Your task to perform on an android device: Open ESPN.com Image 0: 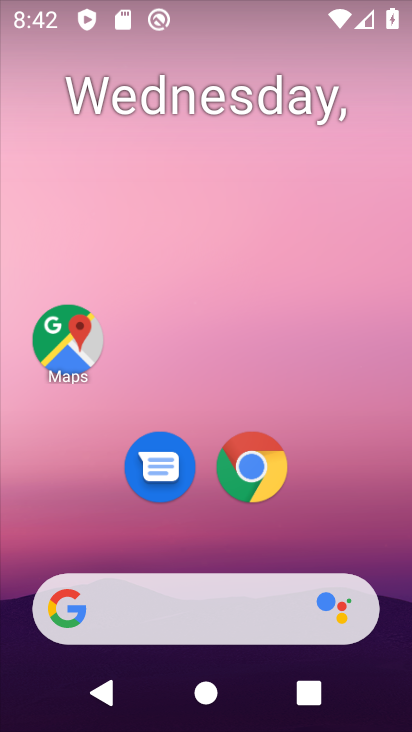
Step 0: drag from (333, 491) to (293, 177)
Your task to perform on an android device: Open ESPN.com Image 1: 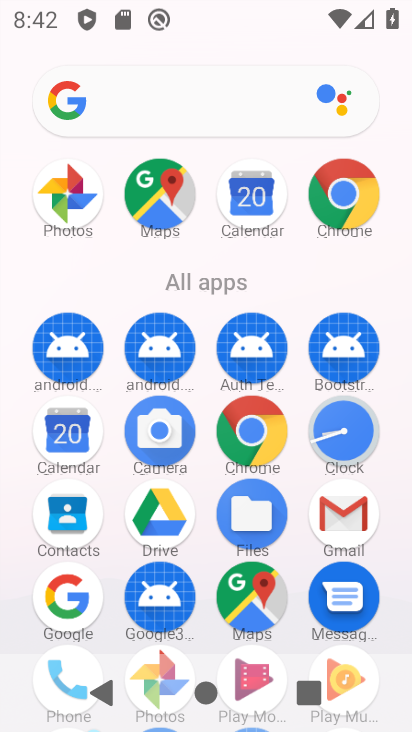
Step 1: click (259, 447)
Your task to perform on an android device: Open ESPN.com Image 2: 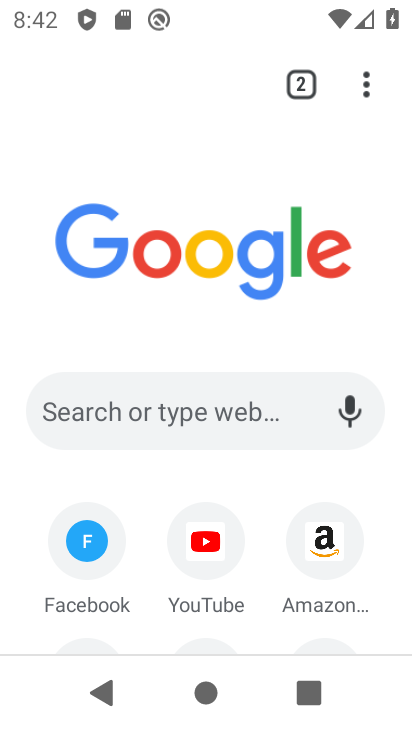
Step 2: click (156, 403)
Your task to perform on an android device: Open ESPN.com Image 3: 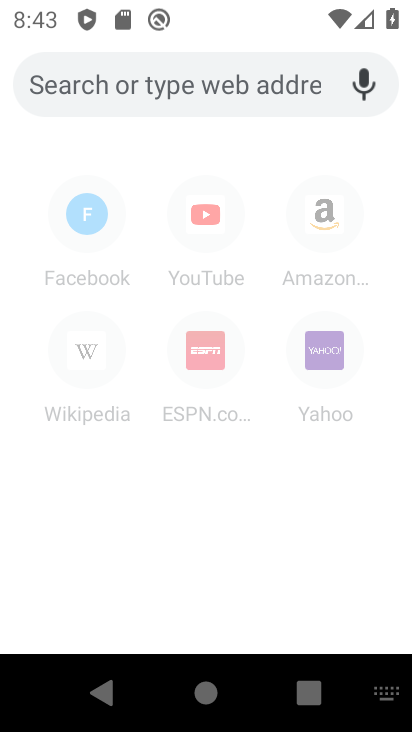
Step 3: type "espn.com"
Your task to perform on an android device: Open ESPN.com Image 4: 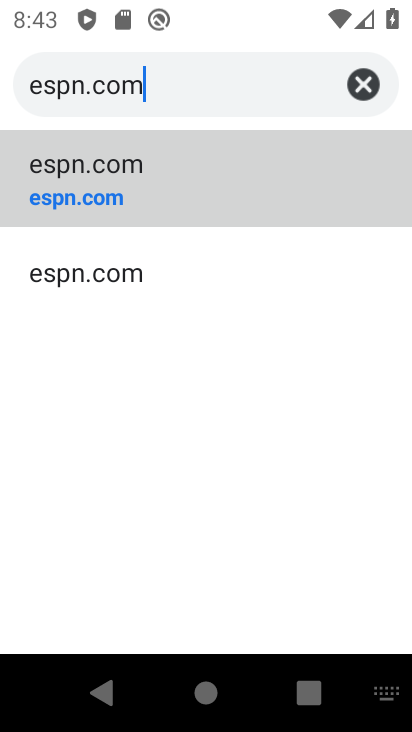
Step 4: click (69, 173)
Your task to perform on an android device: Open ESPN.com Image 5: 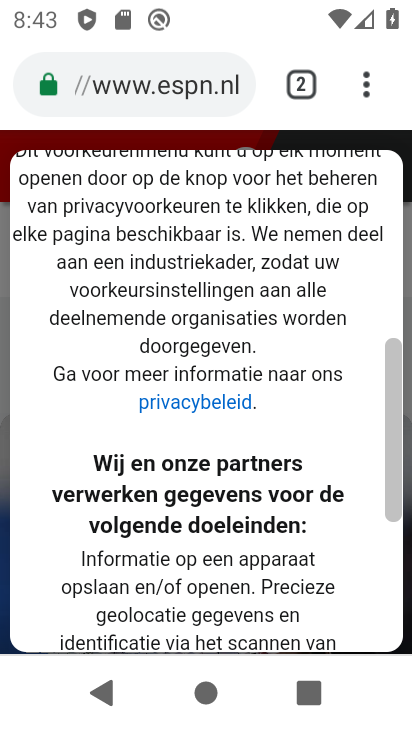
Step 5: task complete